Your task to perform on an android device: set the timer Image 0: 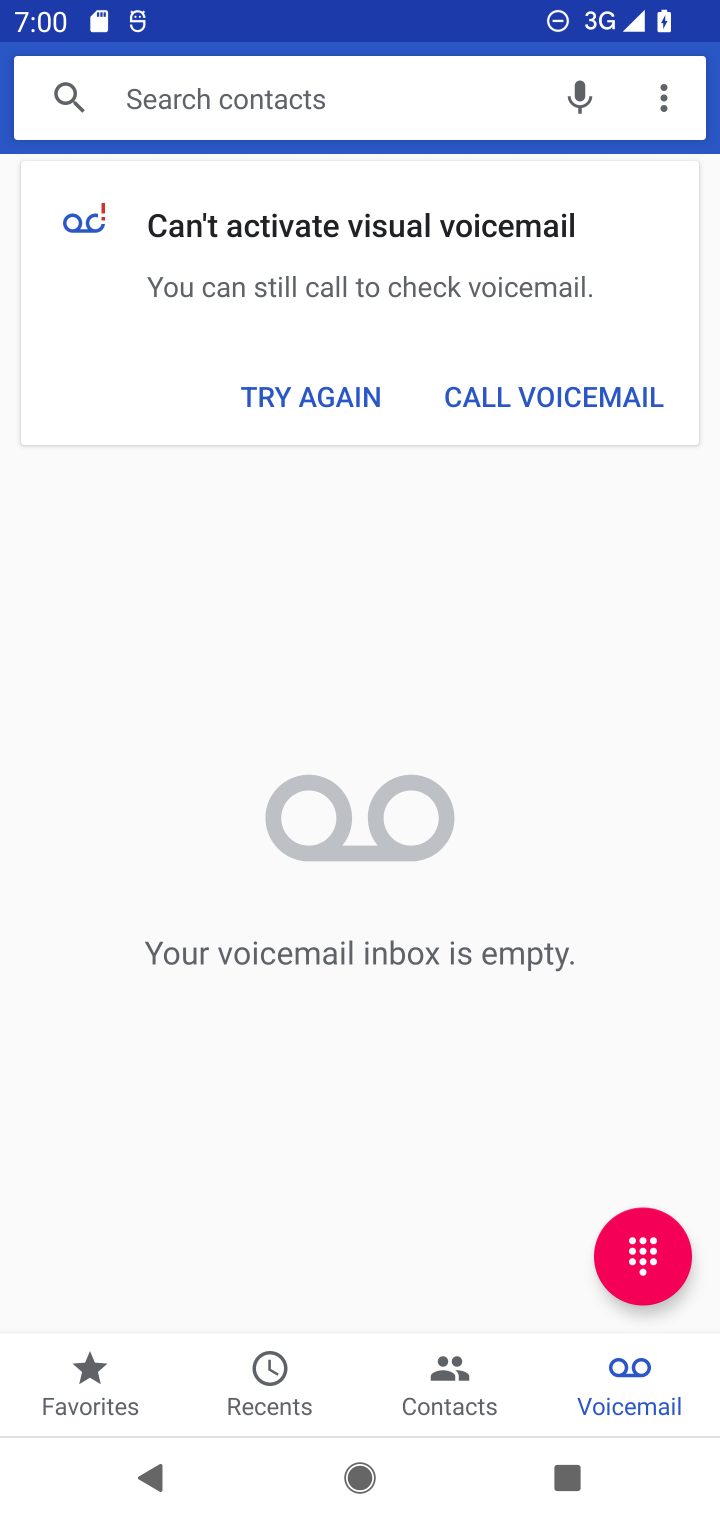
Step 0: press home button
Your task to perform on an android device: set the timer Image 1: 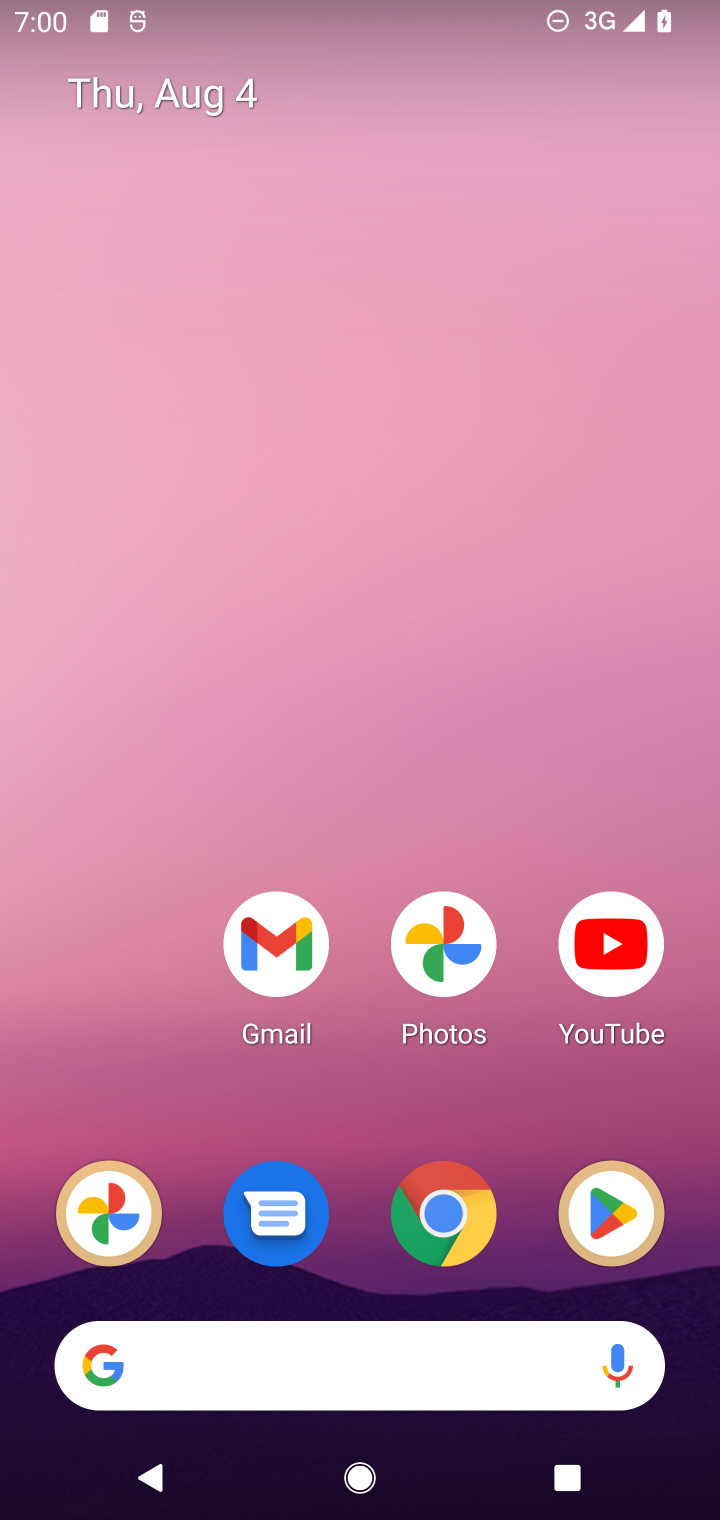
Step 1: drag from (109, 901) to (142, 289)
Your task to perform on an android device: set the timer Image 2: 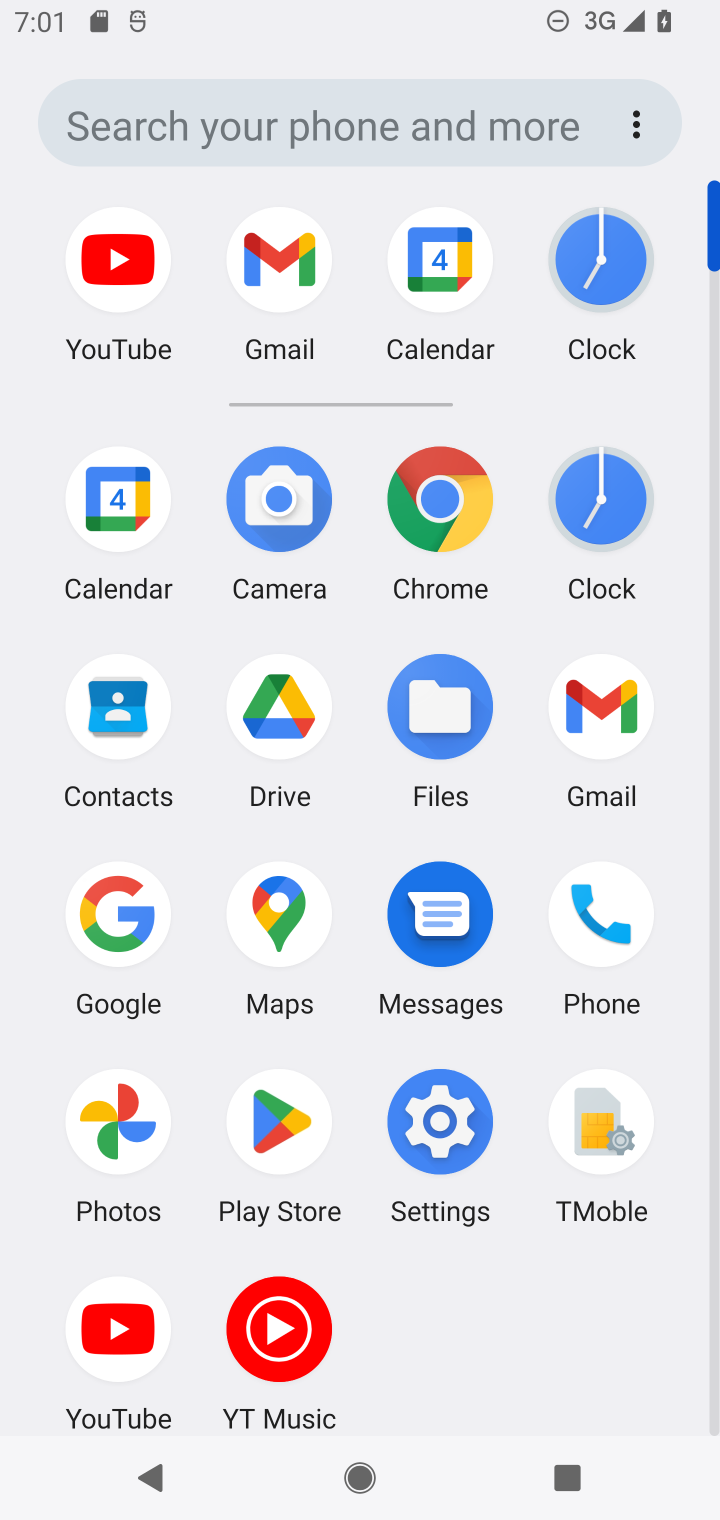
Step 2: click (626, 502)
Your task to perform on an android device: set the timer Image 3: 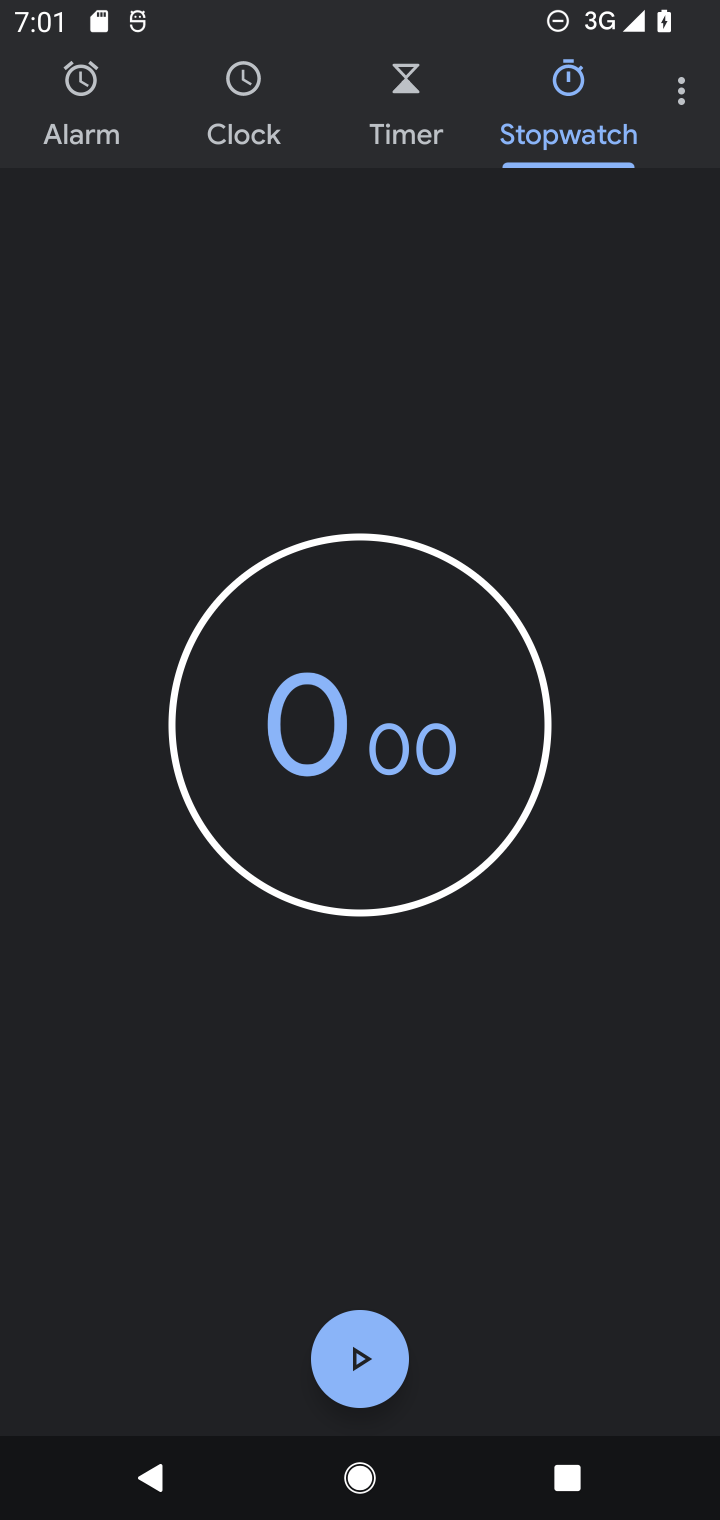
Step 3: click (407, 81)
Your task to perform on an android device: set the timer Image 4: 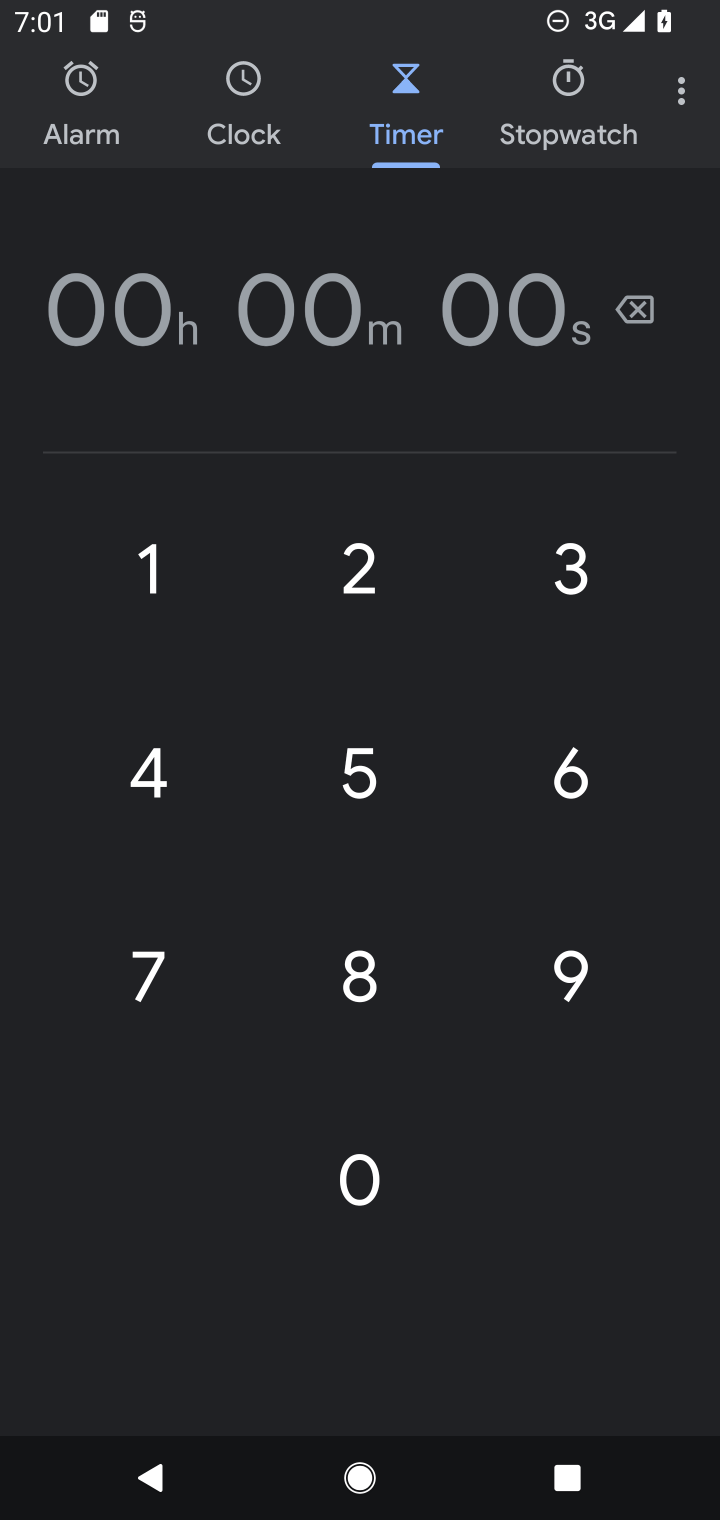
Step 4: click (353, 785)
Your task to perform on an android device: set the timer Image 5: 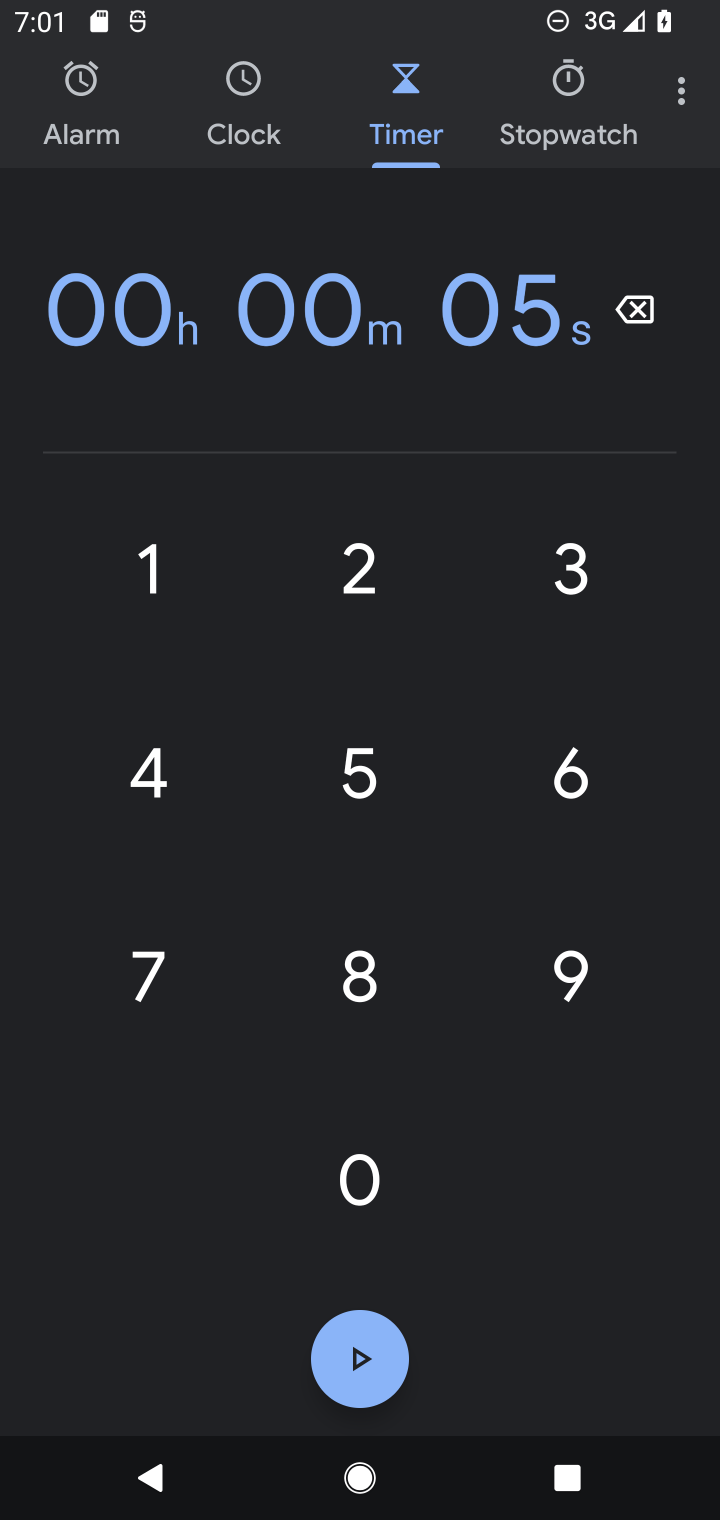
Step 5: task complete